Your task to perform on an android device: toggle priority inbox in the gmail app Image 0: 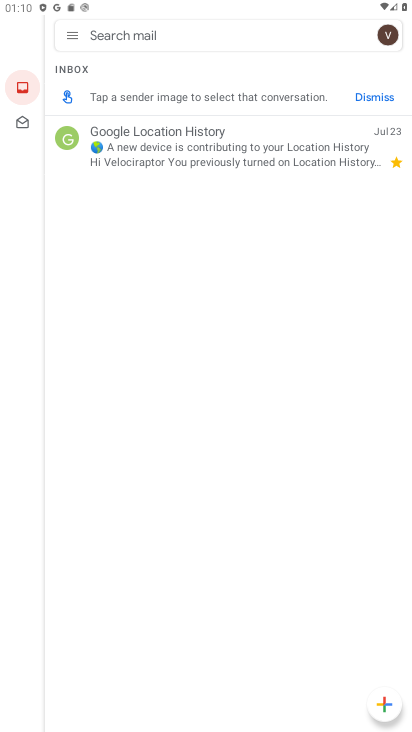
Step 0: press home button
Your task to perform on an android device: toggle priority inbox in the gmail app Image 1: 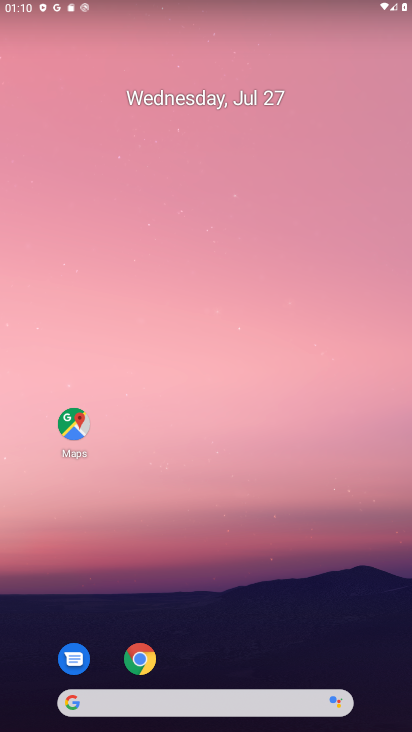
Step 1: drag from (337, 600) to (166, 101)
Your task to perform on an android device: toggle priority inbox in the gmail app Image 2: 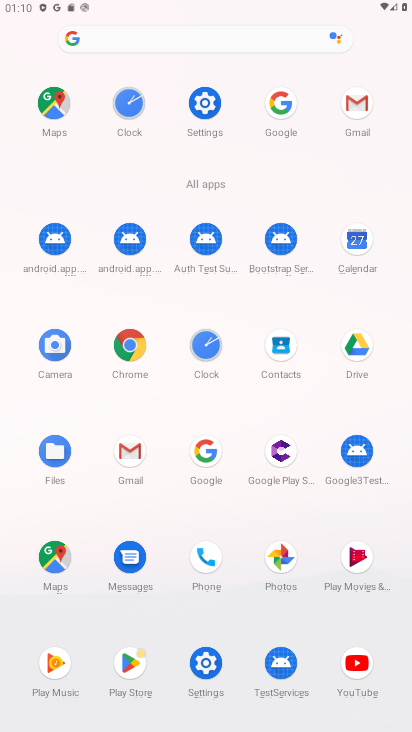
Step 2: click (353, 107)
Your task to perform on an android device: toggle priority inbox in the gmail app Image 3: 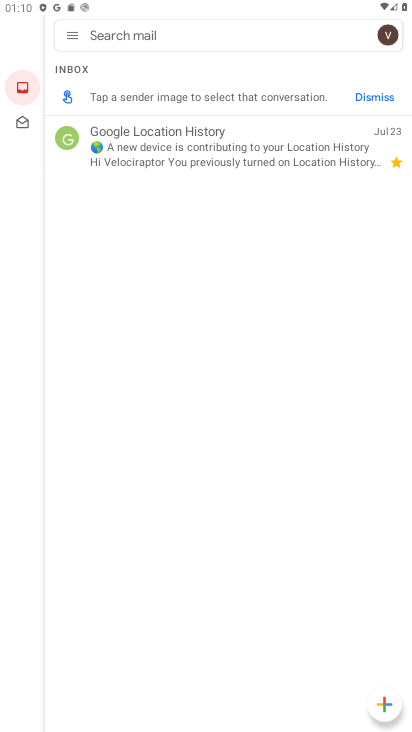
Step 3: click (69, 42)
Your task to perform on an android device: toggle priority inbox in the gmail app Image 4: 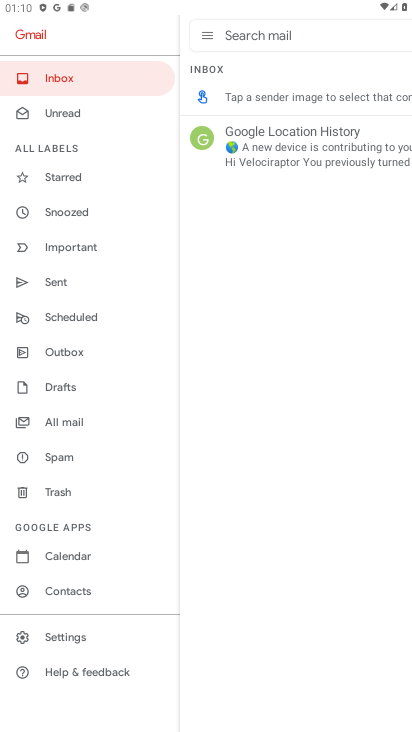
Step 4: click (138, 629)
Your task to perform on an android device: toggle priority inbox in the gmail app Image 5: 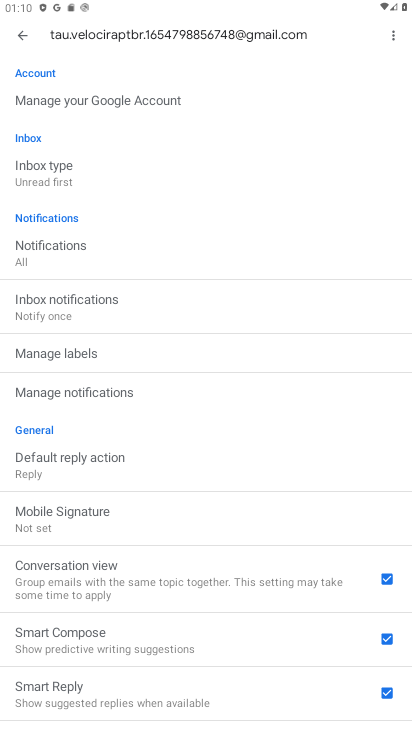
Step 5: click (102, 169)
Your task to perform on an android device: toggle priority inbox in the gmail app Image 6: 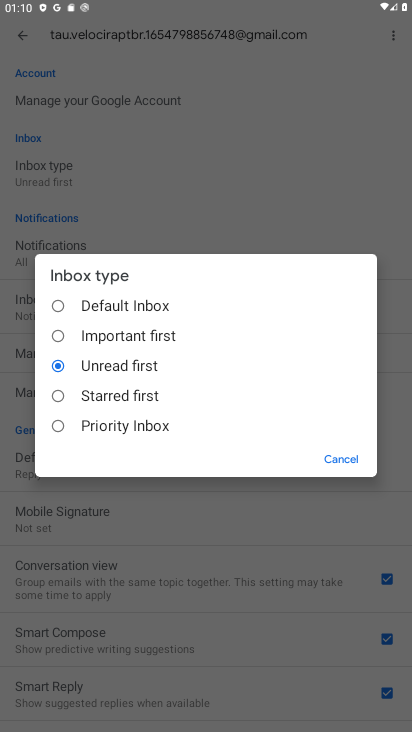
Step 6: click (155, 427)
Your task to perform on an android device: toggle priority inbox in the gmail app Image 7: 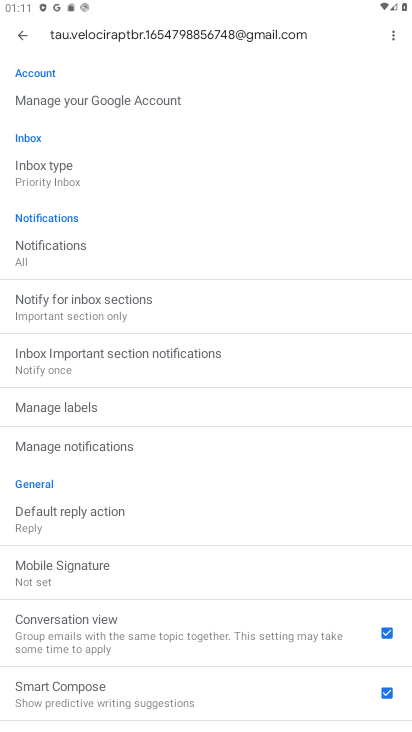
Step 7: task complete